Your task to perform on an android device: open chrome privacy settings Image 0: 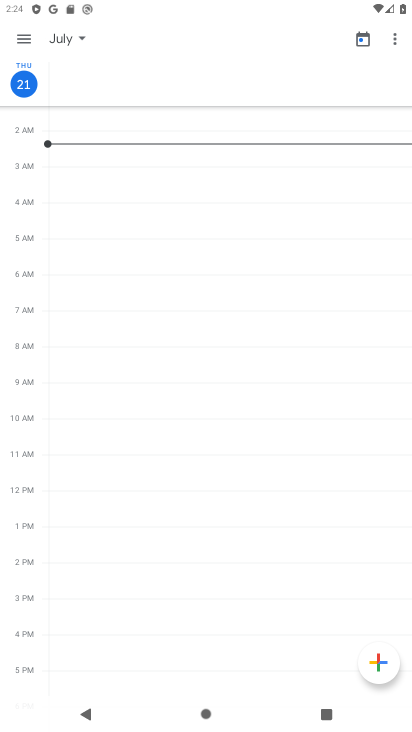
Step 0: press home button
Your task to perform on an android device: open chrome privacy settings Image 1: 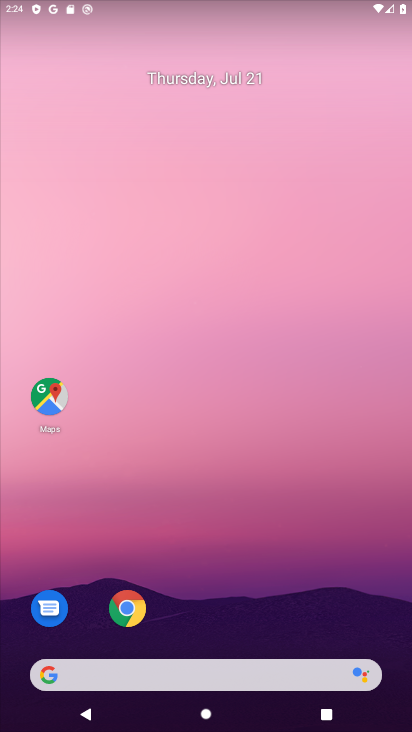
Step 1: drag from (221, 644) to (387, 659)
Your task to perform on an android device: open chrome privacy settings Image 2: 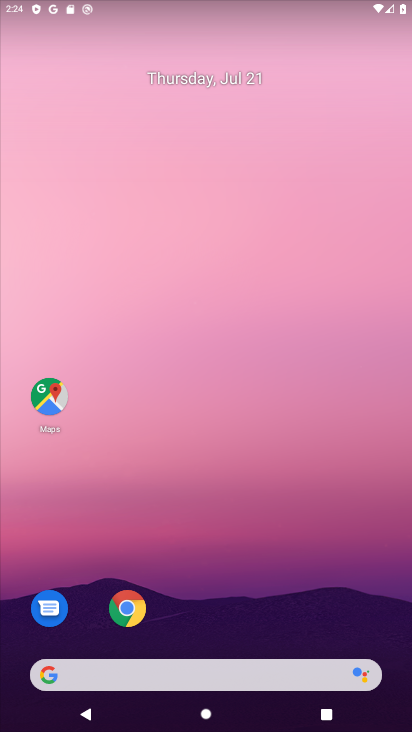
Step 2: click (124, 381)
Your task to perform on an android device: open chrome privacy settings Image 3: 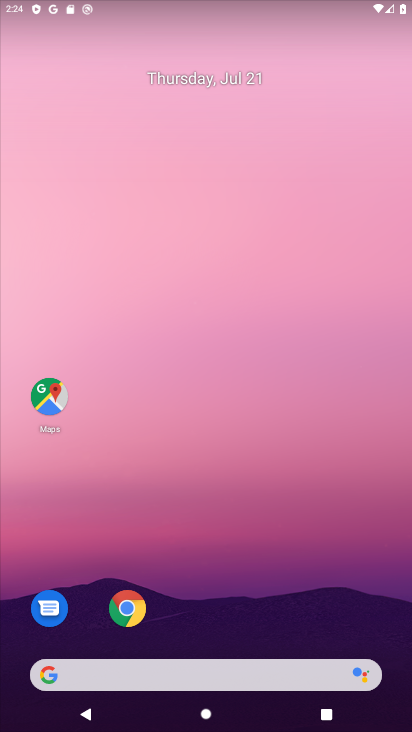
Step 3: click (133, 613)
Your task to perform on an android device: open chrome privacy settings Image 4: 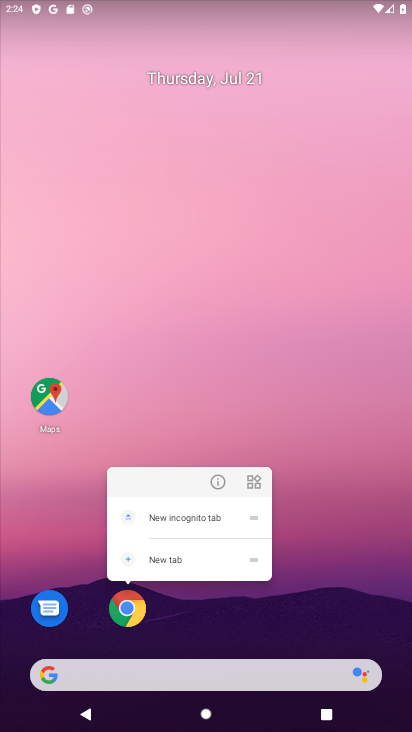
Step 4: click (128, 605)
Your task to perform on an android device: open chrome privacy settings Image 5: 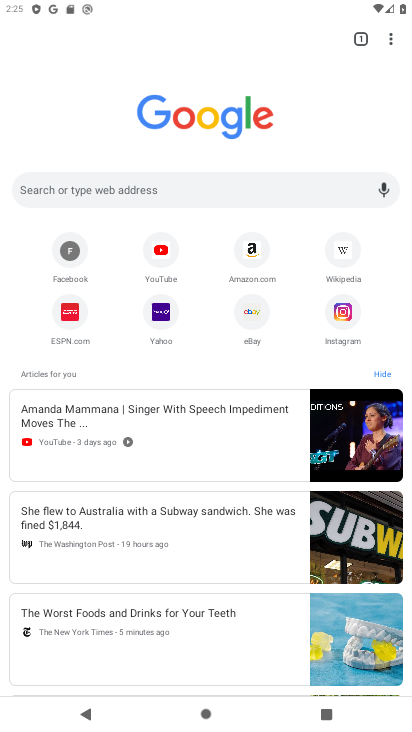
Step 5: drag from (391, 37) to (239, 369)
Your task to perform on an android device: open chrome privacy settings Image 6: 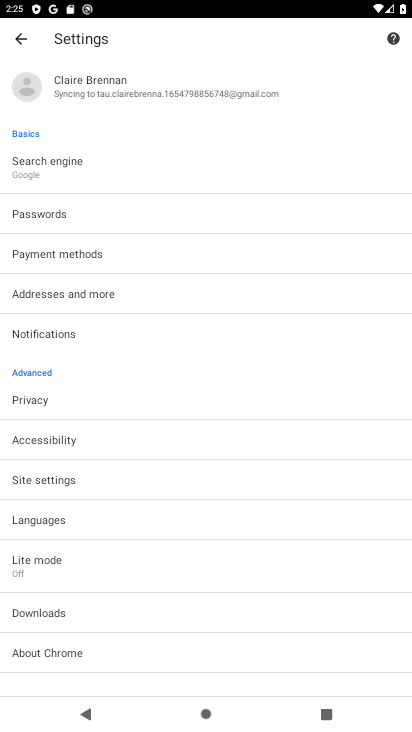
Step 6: click (20, 406)
Your task to perform on an android device: open chrome privacy settings Image 7: 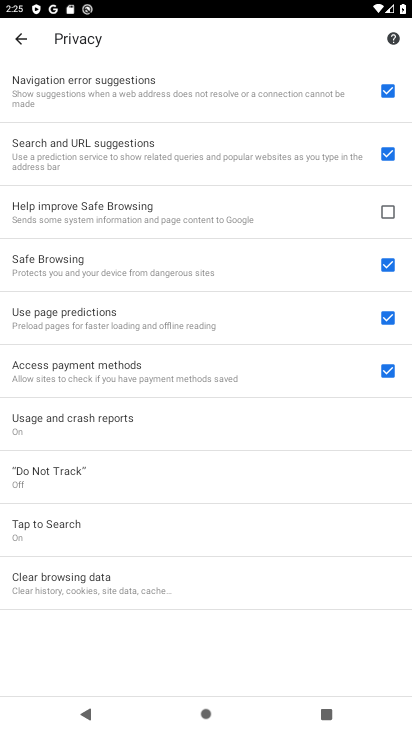
Step 7: task complete